Your task to perform on an android device: Turn off the flashlight Image 0: 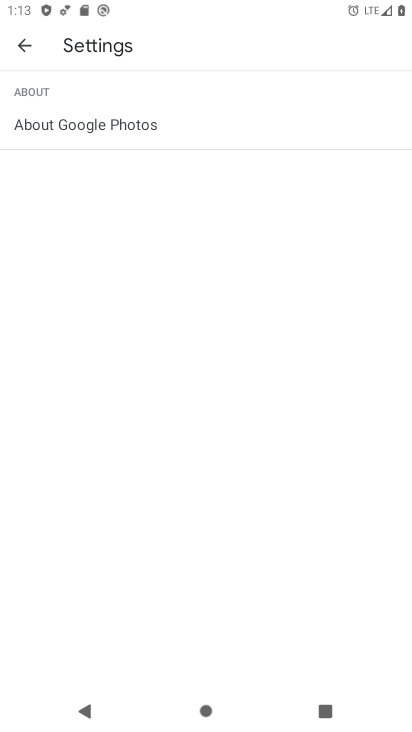
Step 0: press home button
Your task to perform on an android device: Turn off the flashlight Image 1: 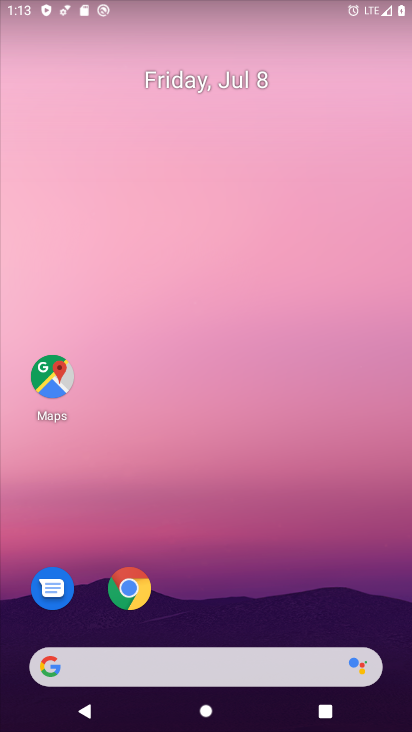
Step 1: drag from (243, 511) to (114, 14)
Your task to perform on an android device: Turn off the flashlight Image 2: 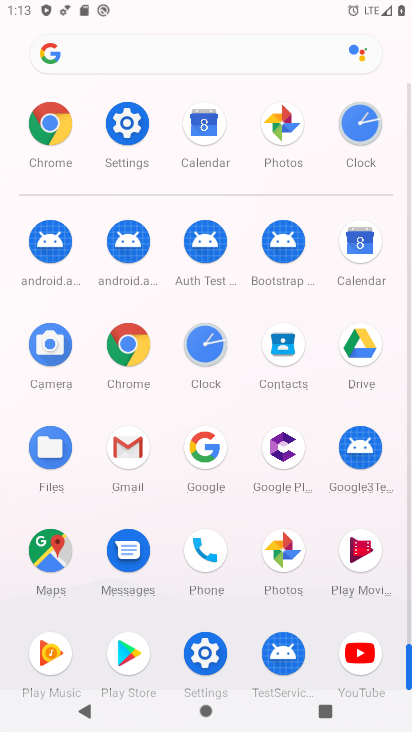
Step 2: click (128, 143)
Your task to perform on an android device: Turn off the flashlight Image 3: 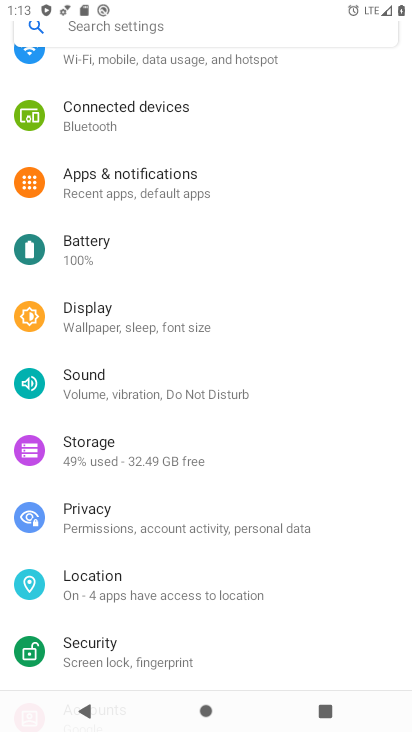
Step 3: drag from (207, 85) to (263, 429)
Your task to perform on an android device: Turn off the flashlight Image 4: 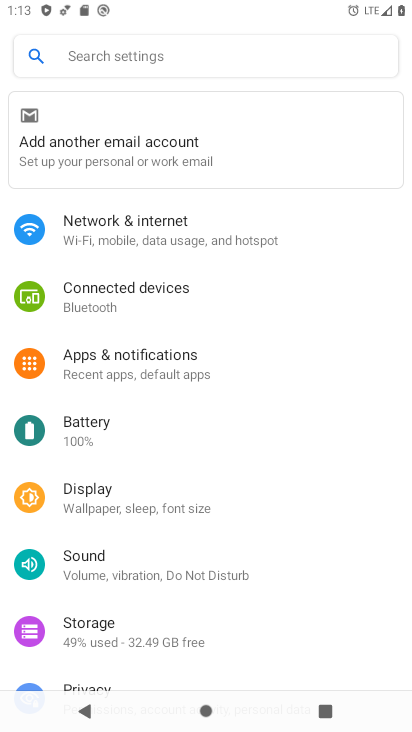
Step 4: click (222, 62)
Your task to perform on an android device: Turn off the flashlight Image 5: 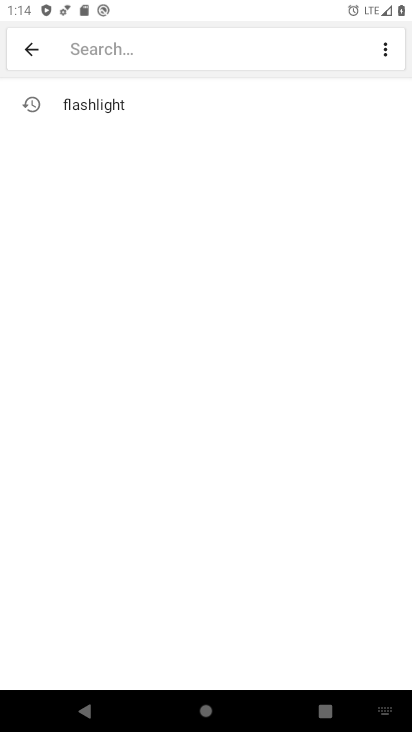
Step 5: type "flashlight"
Your task to perform on an android device: Turn off the flashlight Image 6: 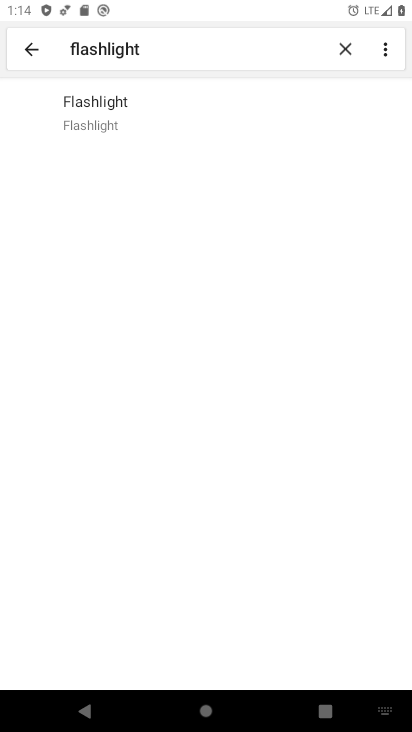
Step 6: task complete